Your task to perform on an android device: check the backup settings in the google photos Image 0: 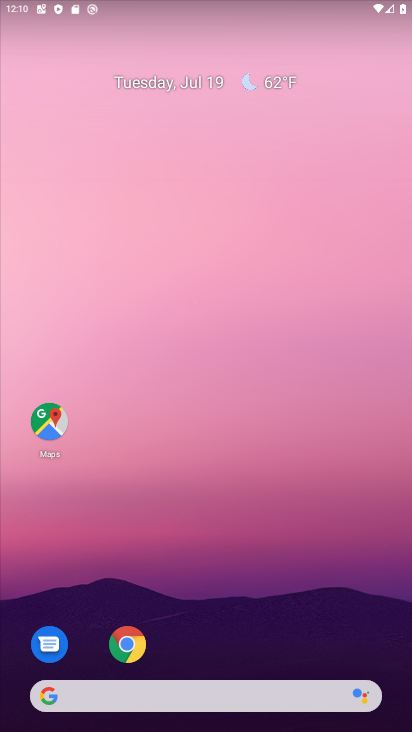
Step 0: drag from (233, 577) to (210, 69)
Your task to perform on an android device: check the backup settings in the google photos Image 1: 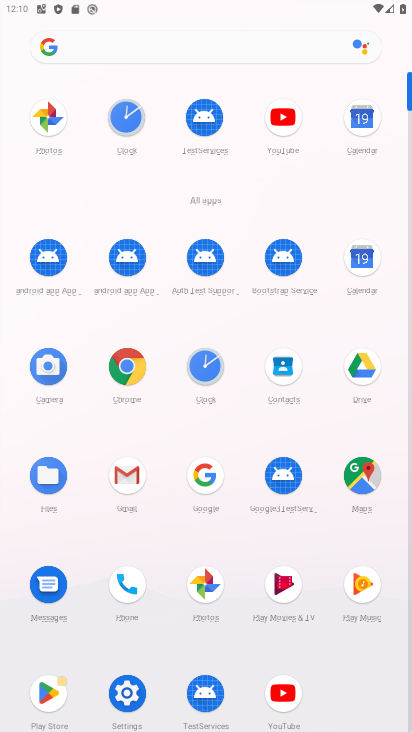
Step 1: click (48, 128)
Your task to perform on an android device: check the backup settings in the google photos Image 2: 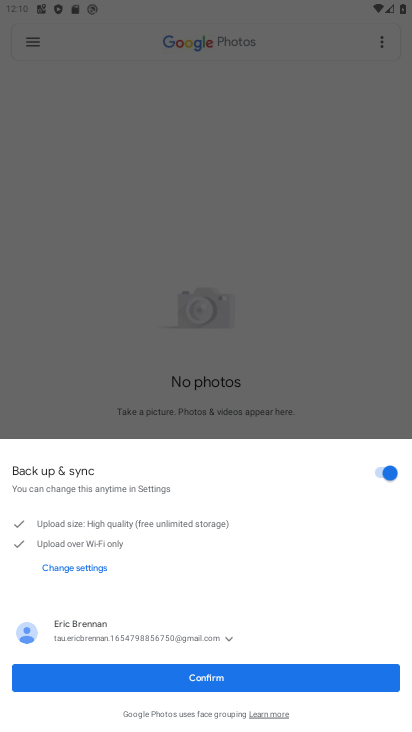
Step 2: click (214, 673)
Your task to perform on an android device: check the backup settings in the google photos Image 3: 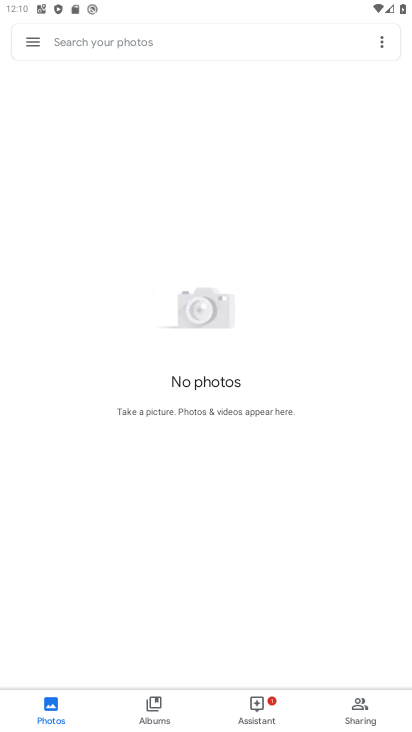
Step 3: click (32, 40)
Your task to perform on an android device: check the backup settings in the google photos Image 4: 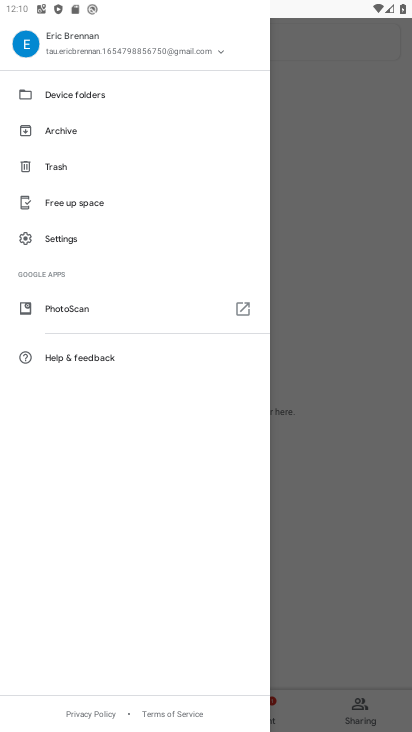
Step 4: click (58, 240)
Your task to perform on an android device: check the backup settings in the google photos Image 5: 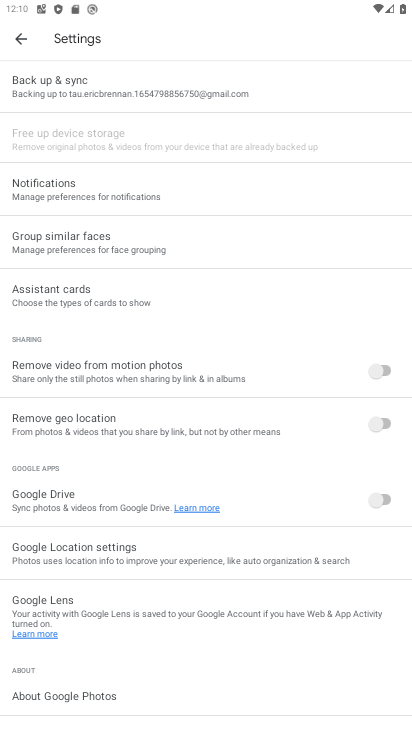
Step 5: click (51, 79)
Your task to perform on an android device: check the backup settings in the google photos Image 6: 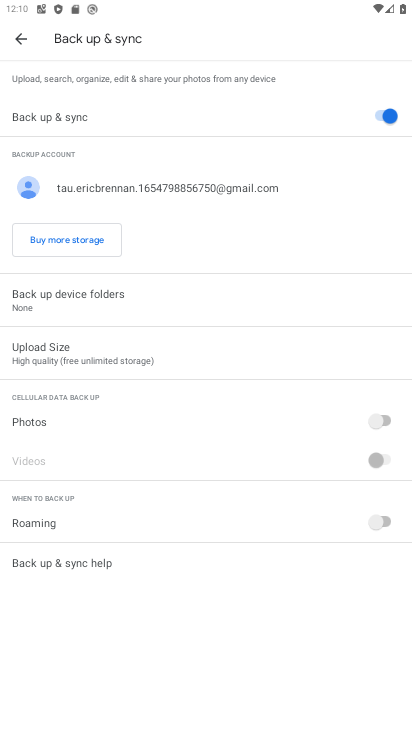
Step 6: task complete